Your task to perform on an android device: toggle wifi Image 0: 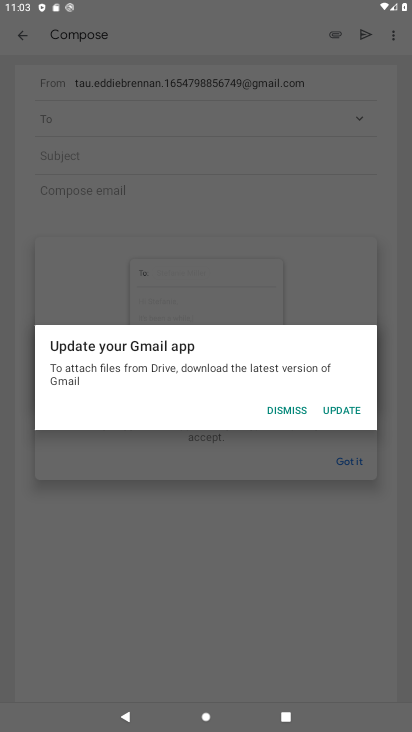
Step 0: press home button
Your task to perform on an android device: toggle wifi Image 1: 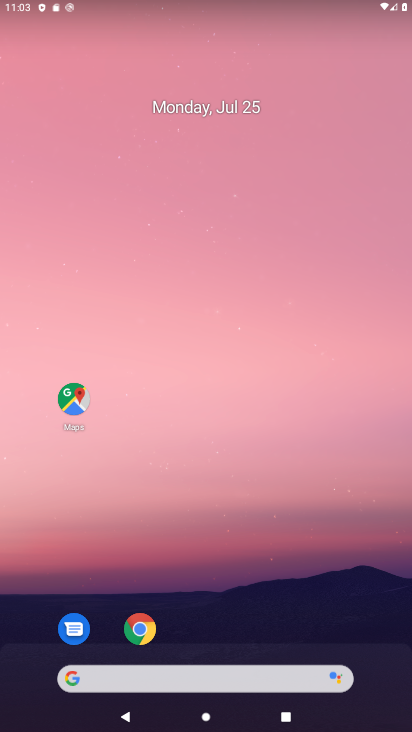
Step 1: drag from (211, 629) to (240, 233)
Your task to perform on an android device: toggle wifi Image 2: 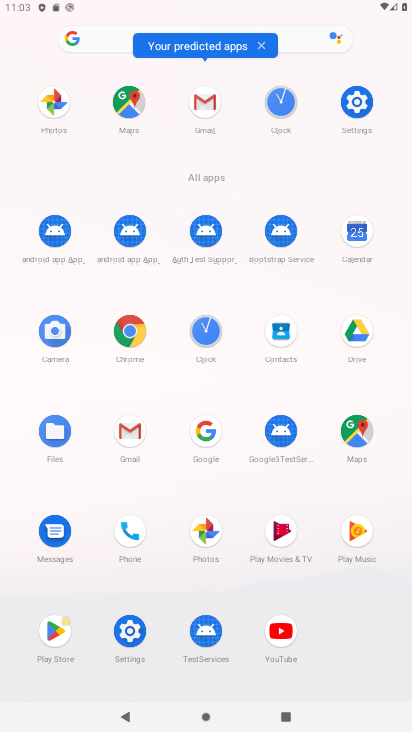
Step 2: click (348, 99)
Your task to perform on an android device: toggle wifi Image 3: 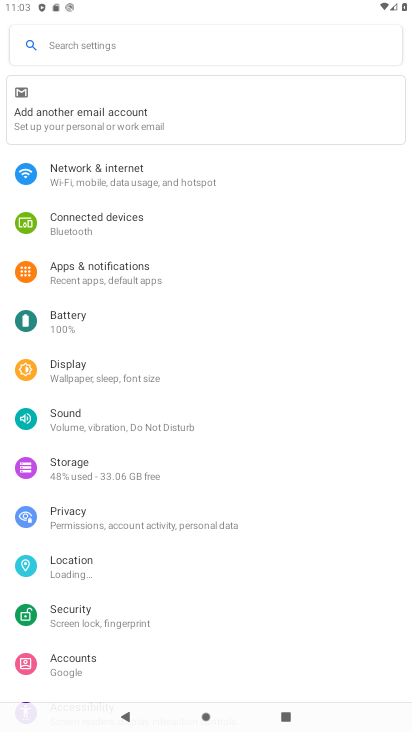
Step 3: click (80, 163)
Your task to perform on an android device: toggle wifi Image 4: 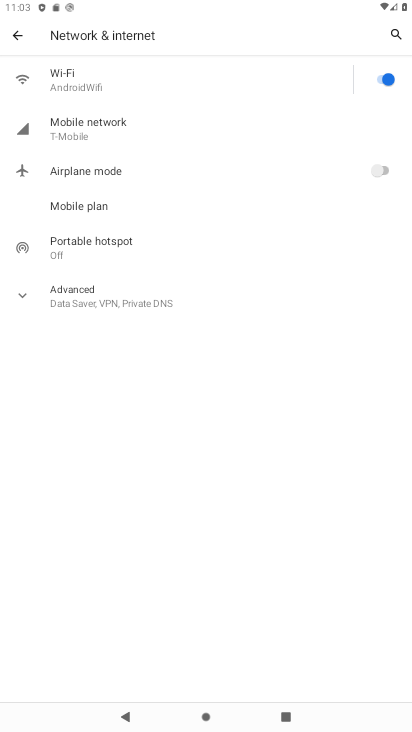
Step 4: click (379, 75)
Your task to perform on an android device: toggle wifi Image 5: 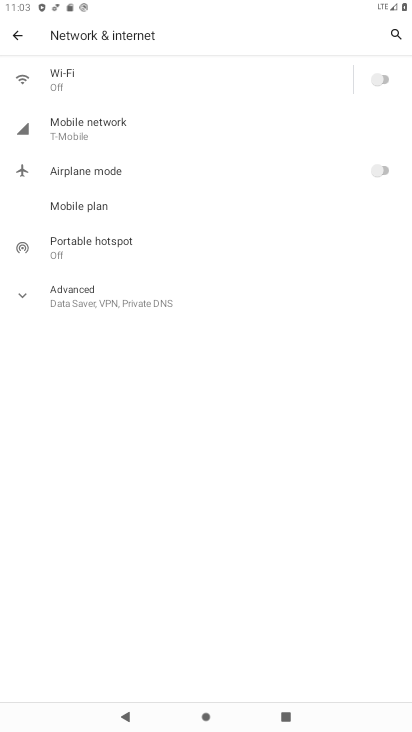
Step 5: task complete